Your task to perform on an android device: Open Google Maps Image 0: 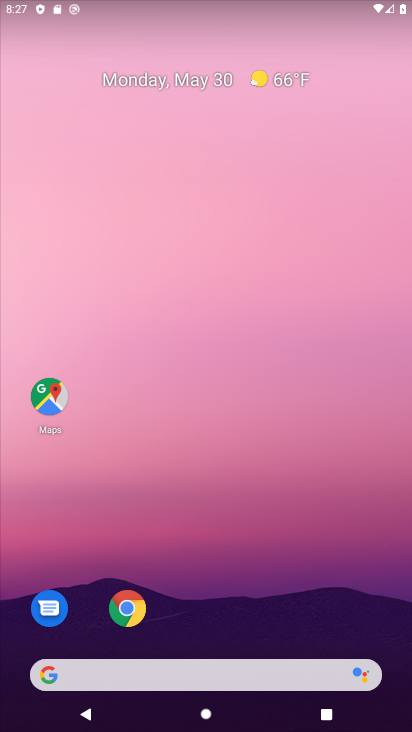
Step 0: drag from (244, 679) to (244, 601)
Your task to perform on an android device: Open Google Maps Image 1: 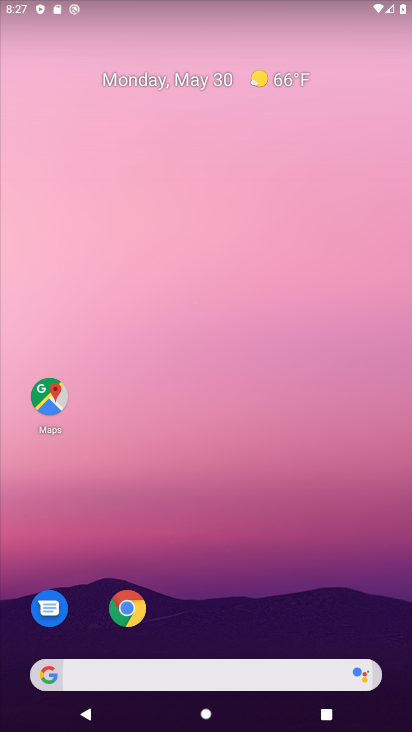
Step 1: drag from (244, 143) to (244, 47)
Your task to perform on an android device: Open Google Maps Image 2: 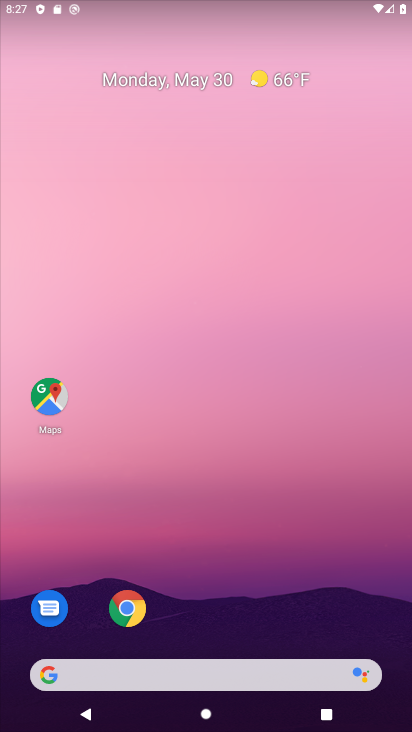
Step 2: drag from (232, 719) to (247, 75)
Your task to perform on an android device: Open Google Maps Image 3: 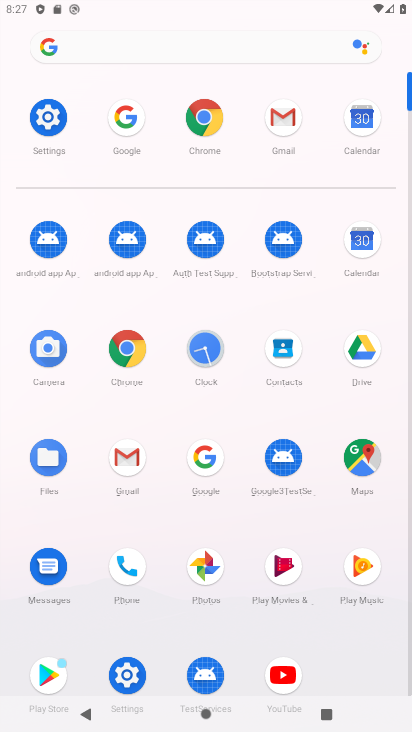
Step 3: click (360, 456)
Your task to perform on an android device: Open Google Maps Image 4: 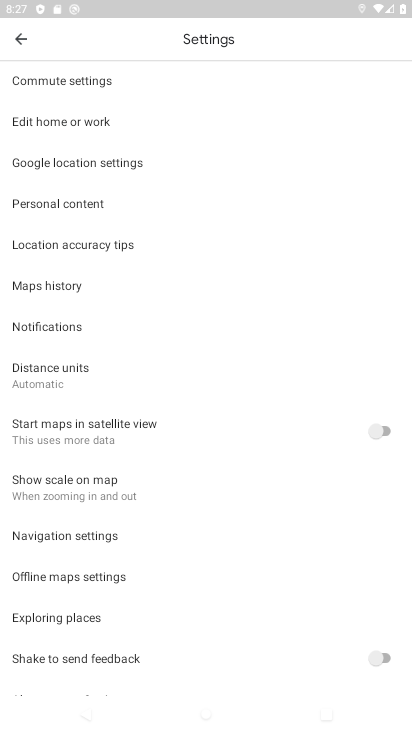
Step 4: click (20, 30)
Your task to perform on an android device: Open Google Maps Image 5: 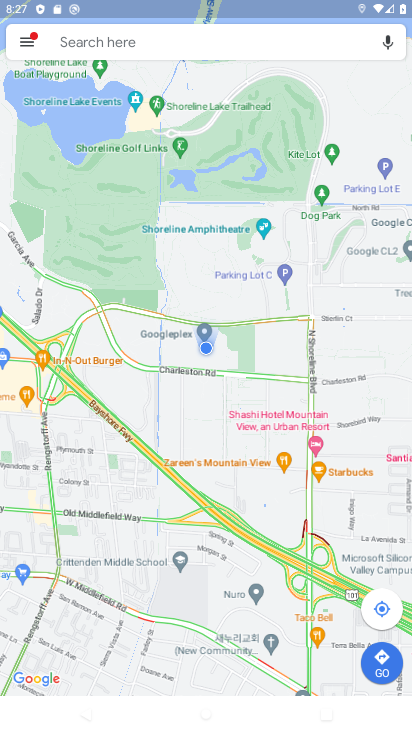
Step 5: task complete